Your task to perform on an android device: delete a single message in the gmail app Image 0: 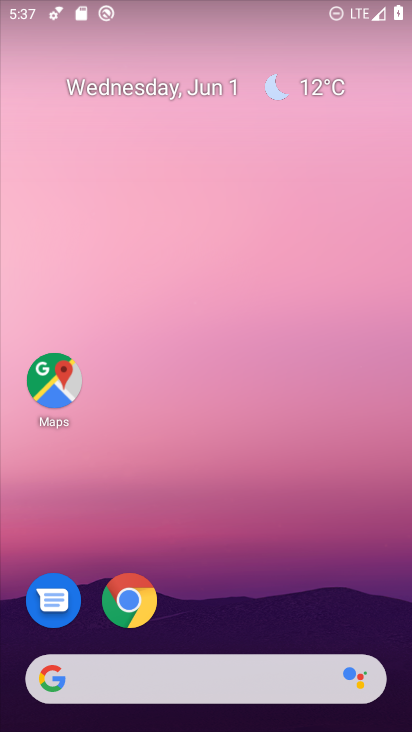
Step 0: drag from (378, 633) to (358, 127)
Your task to perform on an android device: delete a single message in the gmail app Image 1: 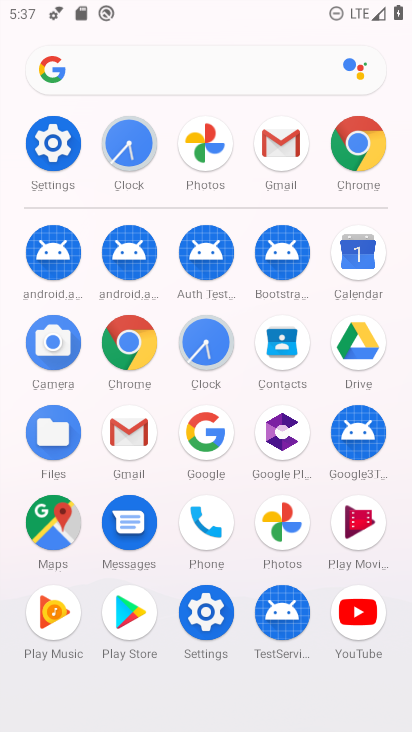
Step 1: click (124, 429)
Your task to perform on an android device: delete a single message in the gmail app Image 2: 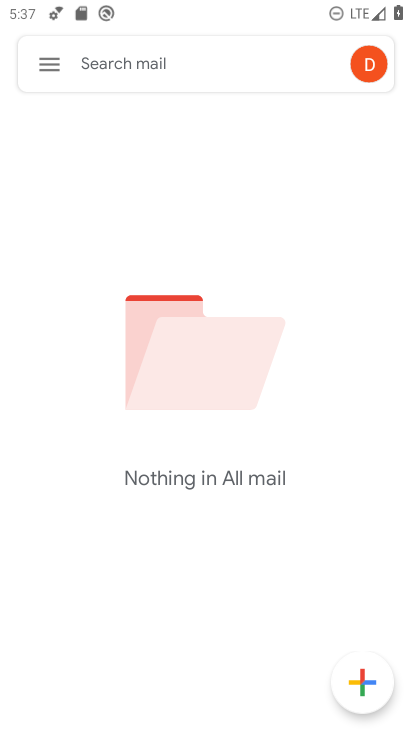
Step 2: click (51, 57)
Your task to perform on an android device: delete a single message in the gmail app Image 3: 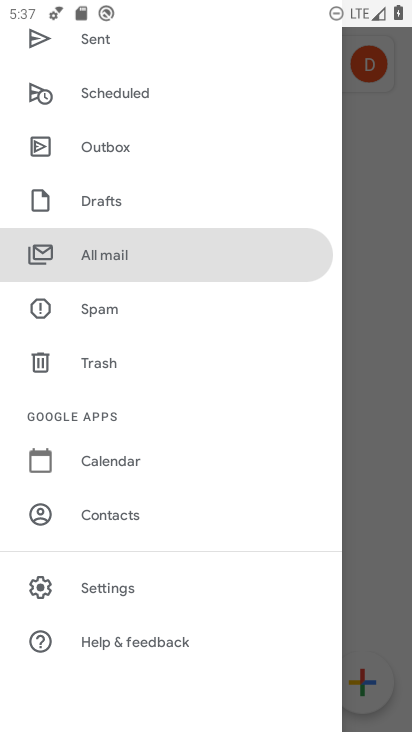
Step 3: click (177, 248)
Your task to perform on an android device: delete a single message in the gmail app Image 4: 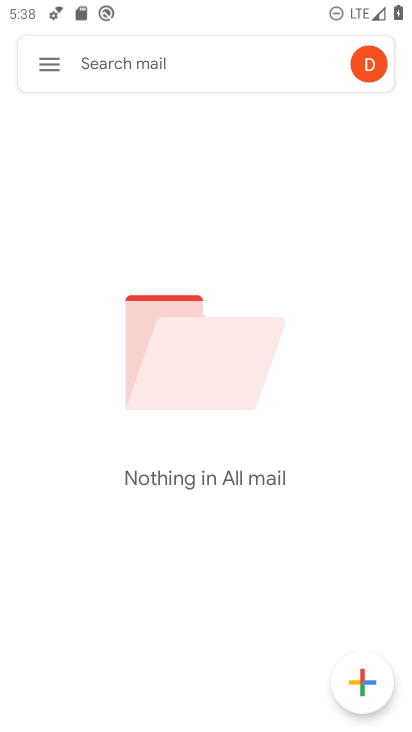
Step 4: task complete